Your task to perform on an android device: Open display settings Image 0: 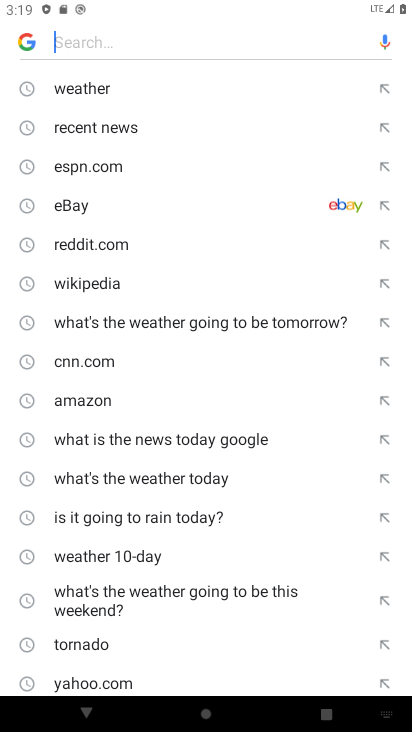
Step 0: press home button
Your task to perform on an android device: Open display settings Image 1: 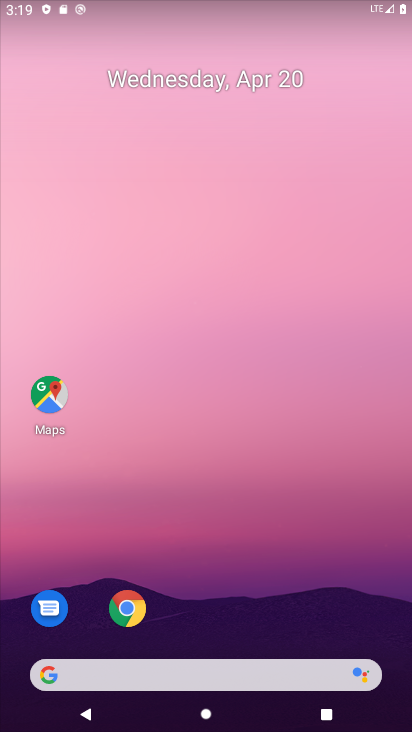
Step 1: drag from (214, 579) to (174, 50)
Your task to perform on an android device: Open display settings Image 2: 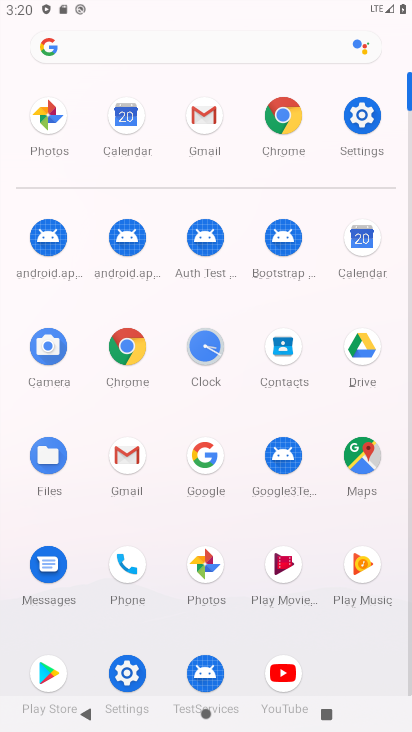
Step 2: click (125, 682)
Your task to perform on an android device: Open display settings Image 3: 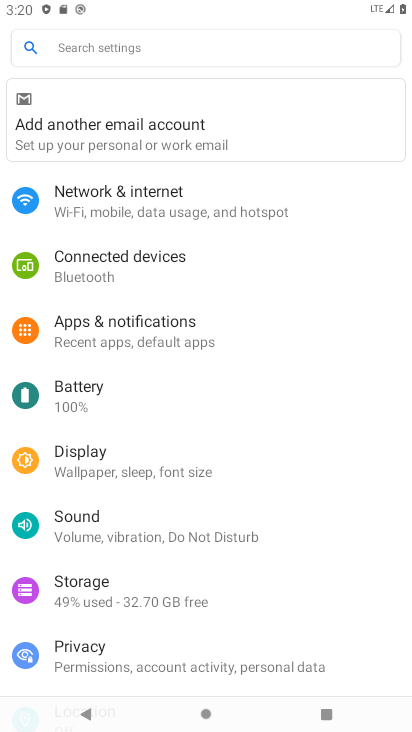
Step 3: click (61, 462)
Your task to perform on an android device: Open display settings Image 4: 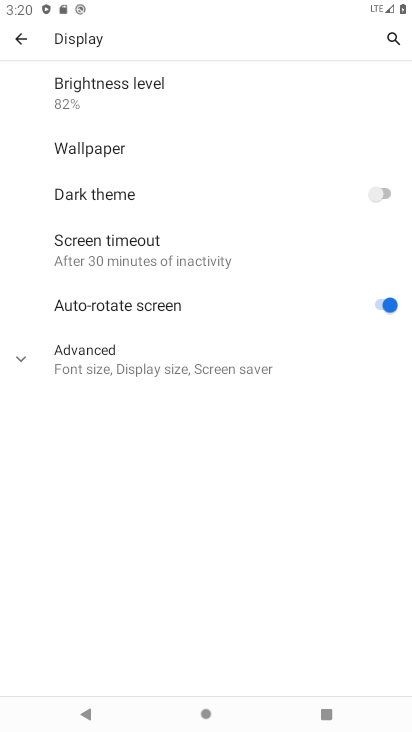
Step 4: click (112, 351)
Your task to perform on an android device: Open display settings Image 5: 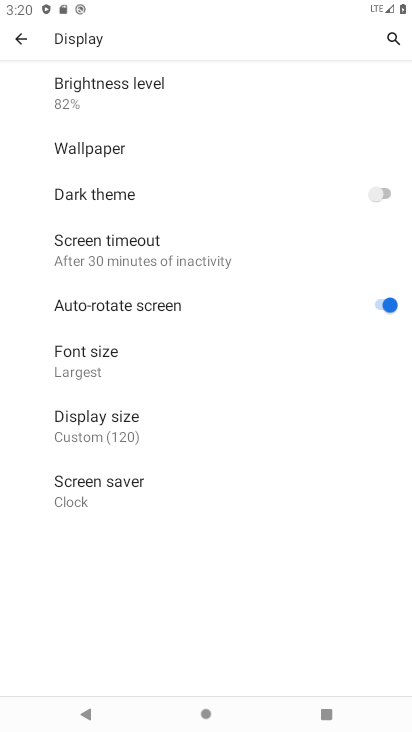
Step 5: task complete